Your task to perform on an android device: change the clock display to digital Image 0: 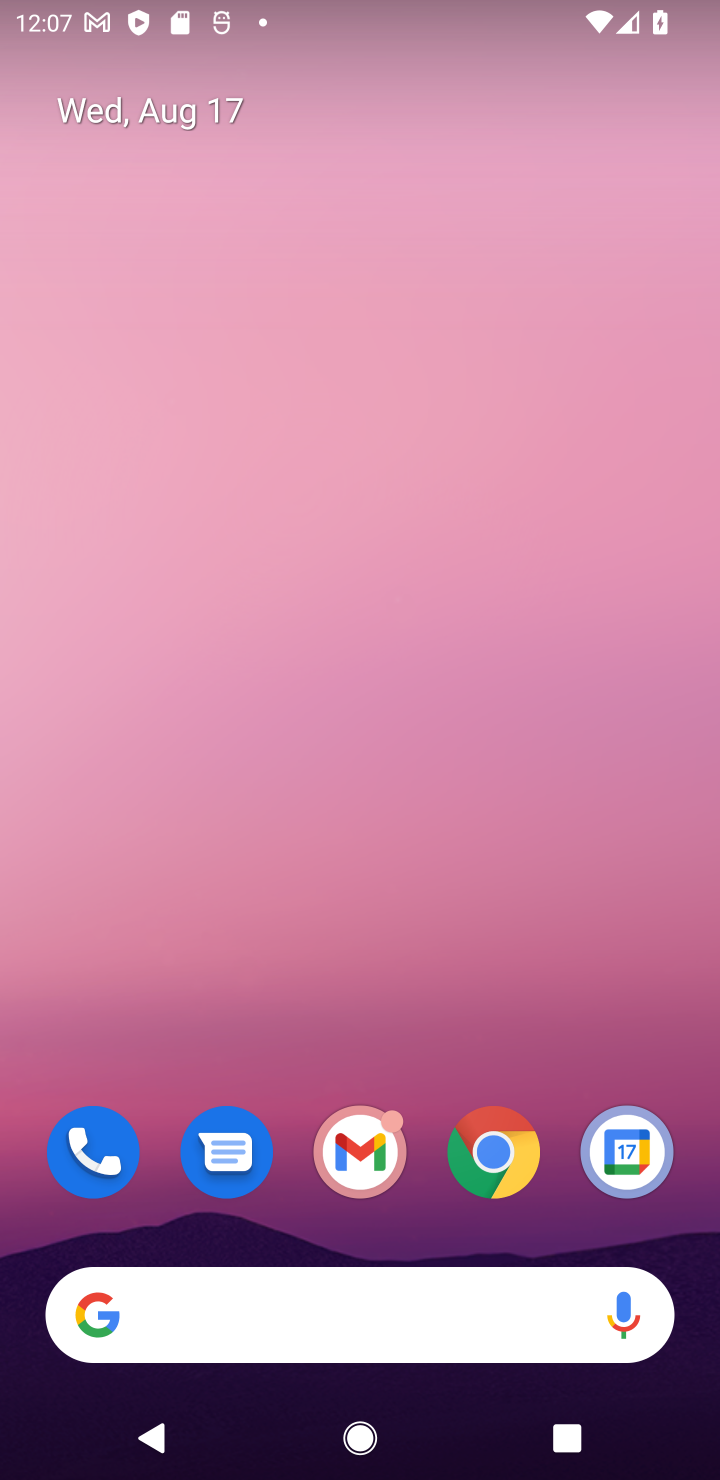
Step 0: drag from (563, 1190) to (418, 80)
Your task to perform on an android device: change the clock display to digital Image 1: 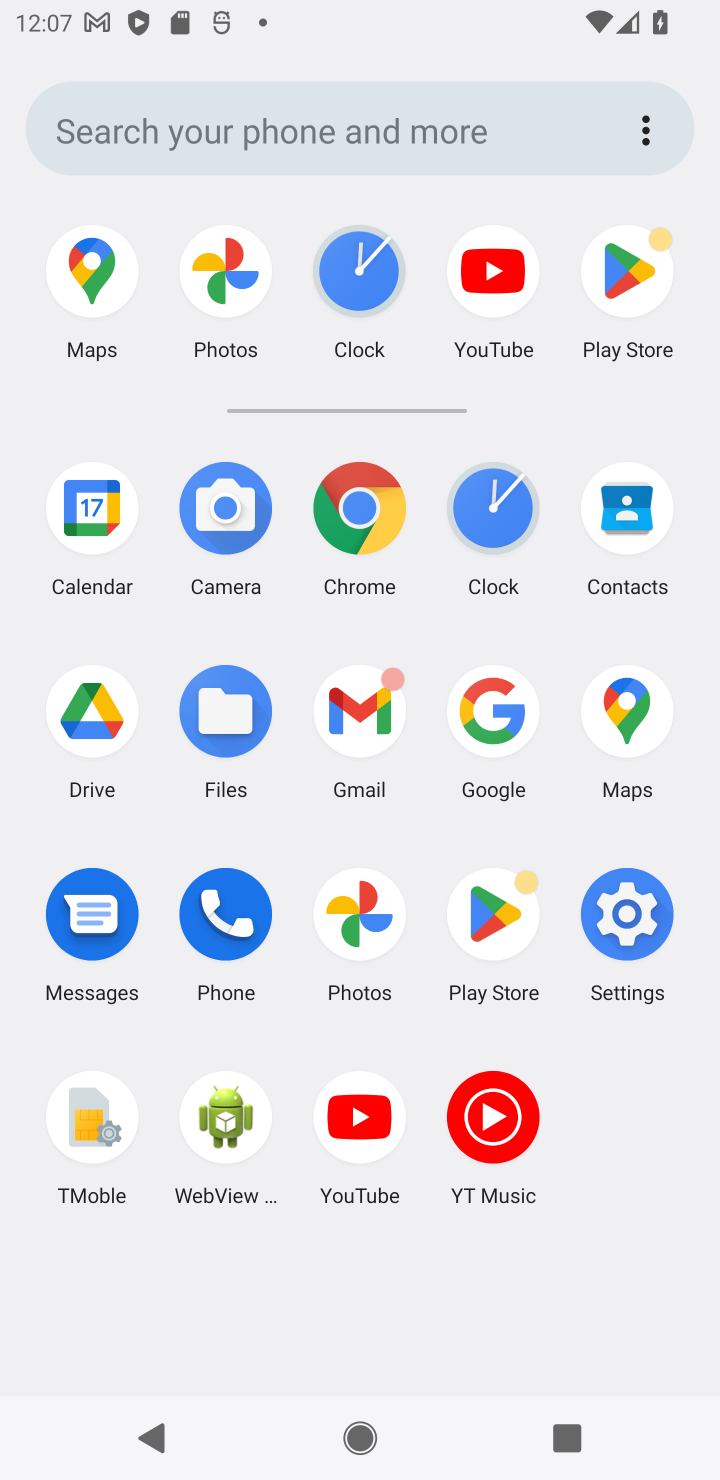
Step 1: click (493, 526)
Your task to perform on an android device: change the clock display to digital Image 2: 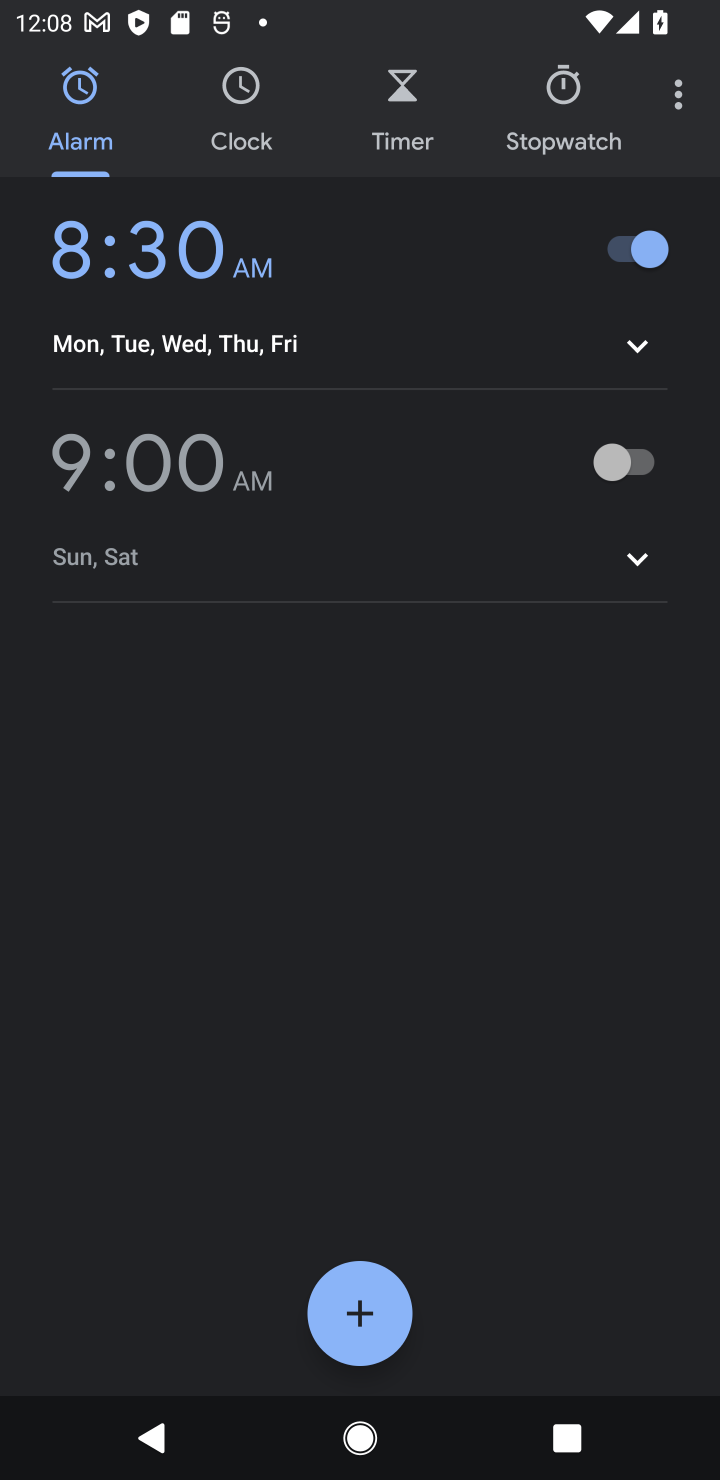
Step 2: click (676, 93)
Your task to perform on an android device: change the clock display to digital Image 3: 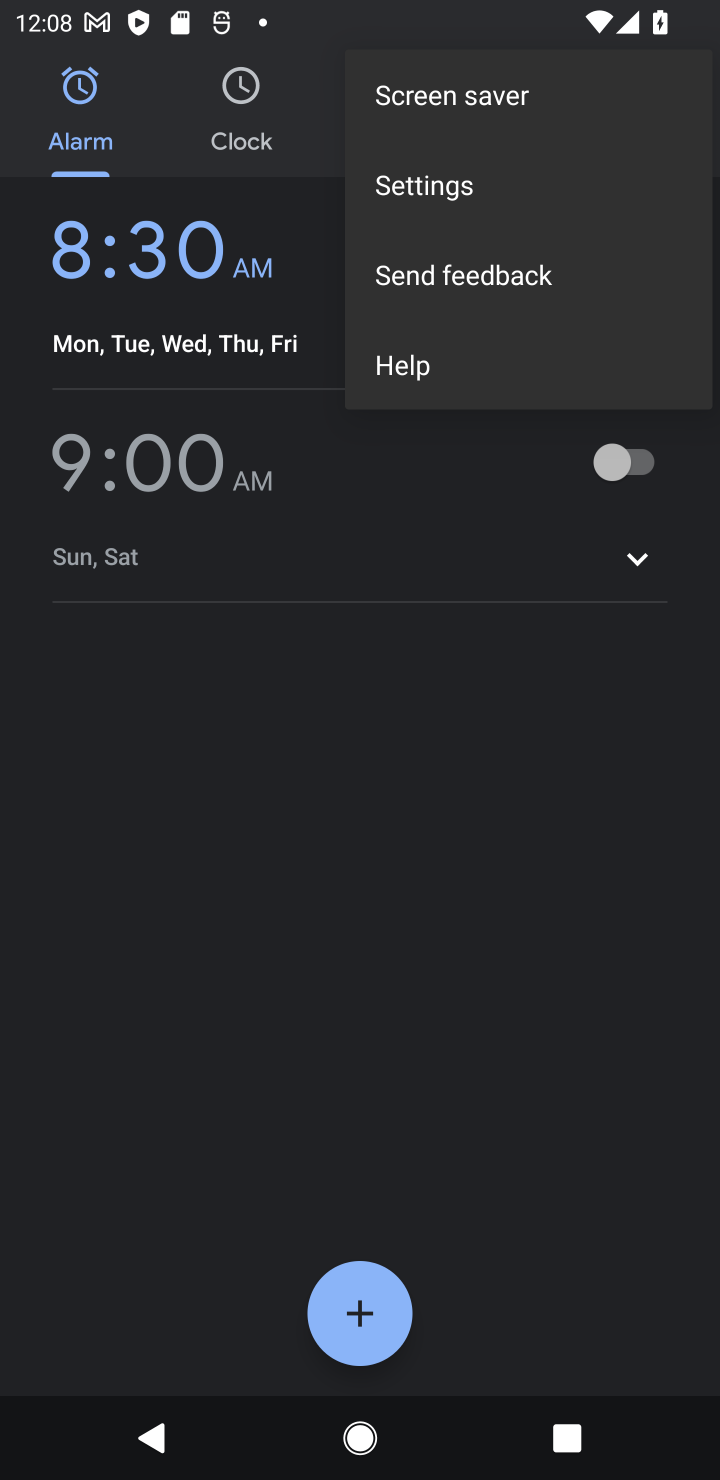
Step 3: click (450, 186)
Your task to perform on an android device: change the clock display to digital Image 4: 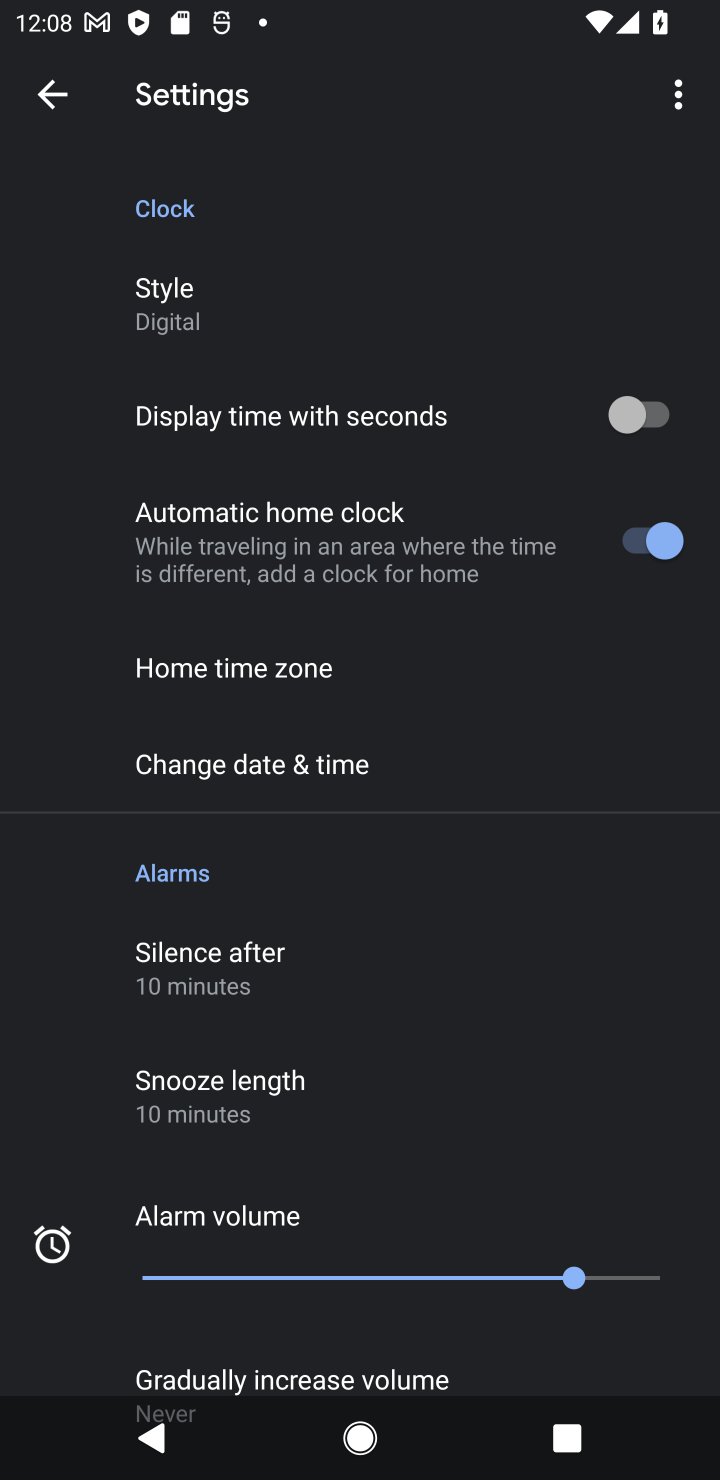
Step 4: click (238, 310)
Your task to perform on an android device: change the clock display to digital Image 5: 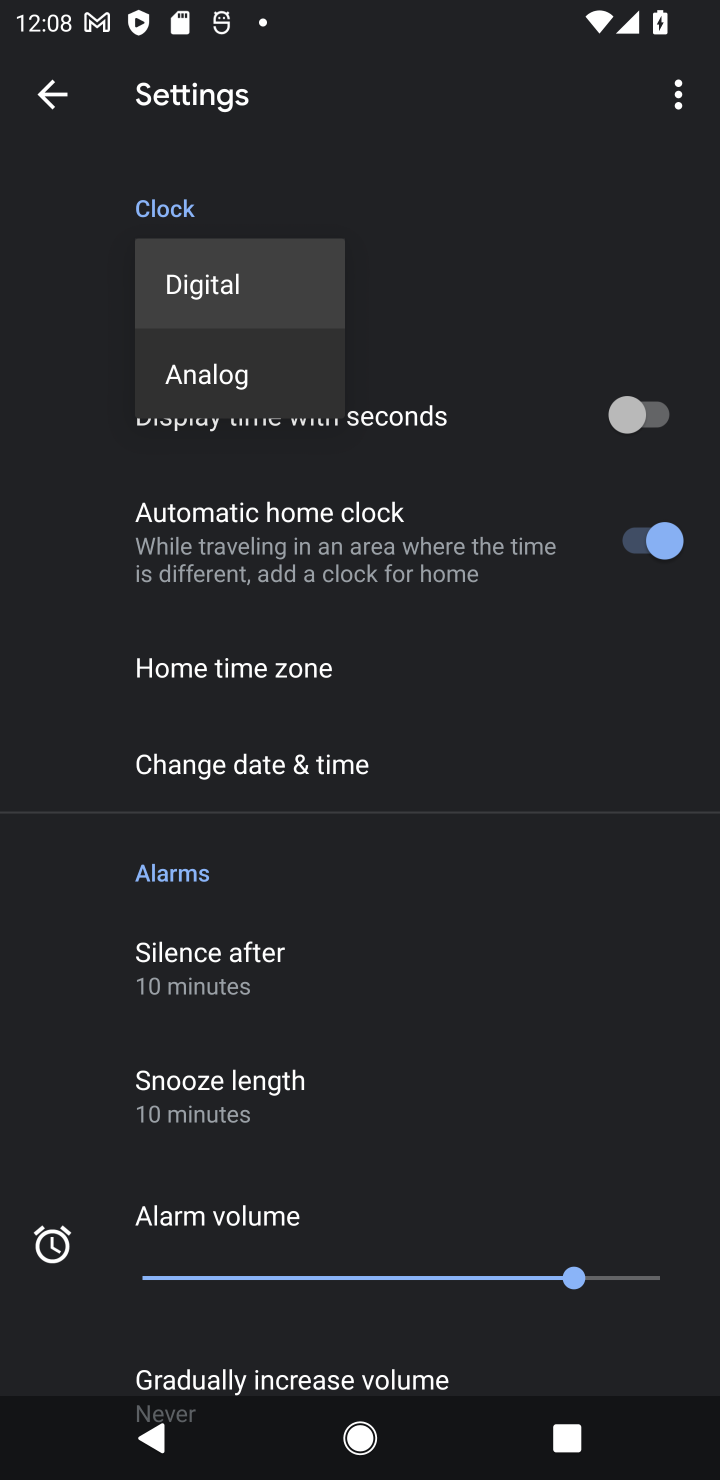
Step 5: click (257, 301)
Your task to perform on an android device: change the clock display to digital Image 6: 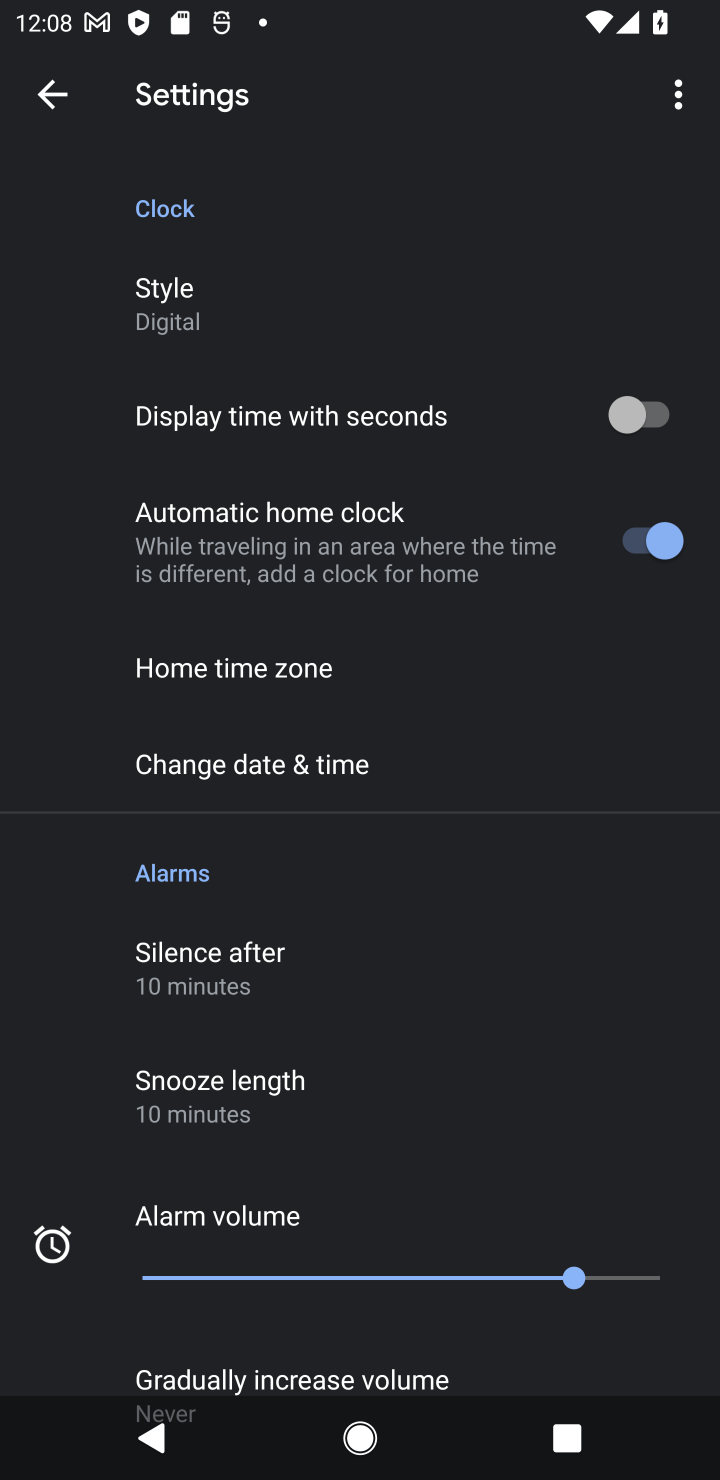
Step 6: task complete